Your task to perform on an android device: turn on data saver in the chrome app Image 0: 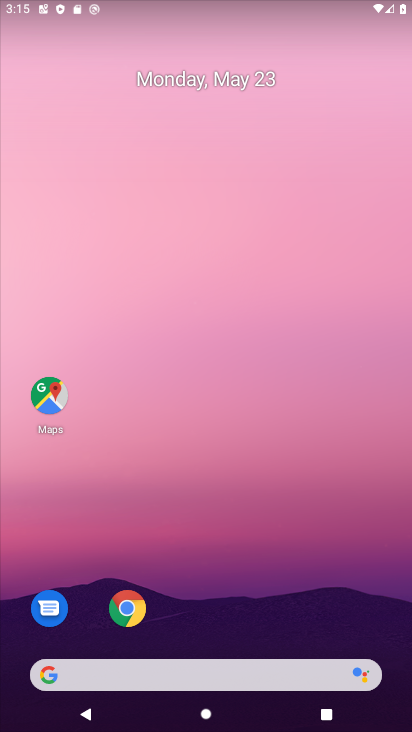
Step 0: click (127, 607)
Your task to perform on an android device: turn on data saver in the chrome app Image 1: 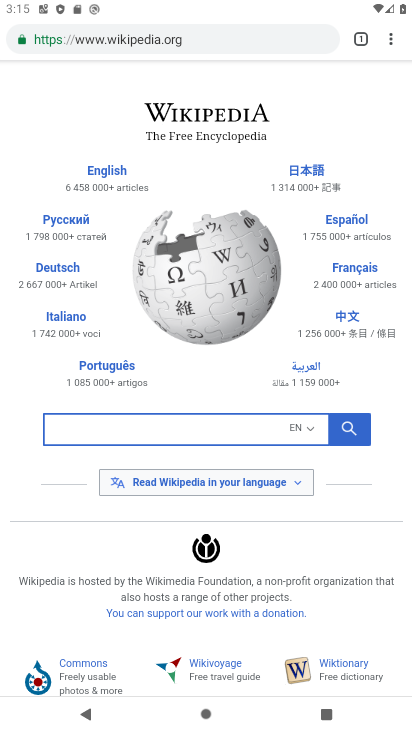
Step 1: click (391, 42)
Your task to perform on an android device: turn on data saver in the chrome app Image 2: 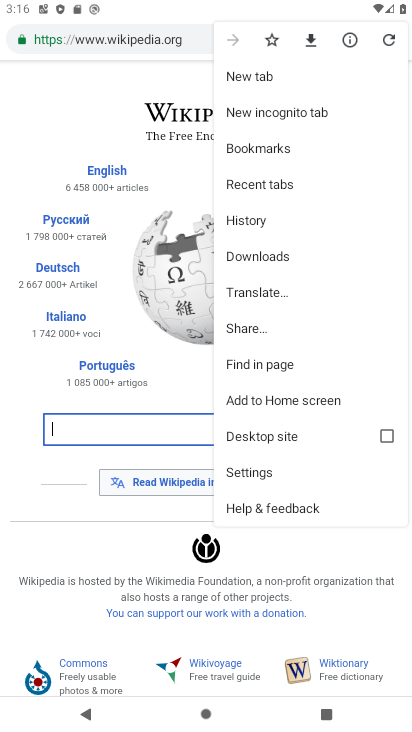
Step 2: click (253, 471)
Your task to perform on an android device: turn on data saver in the chrome app Image 3: 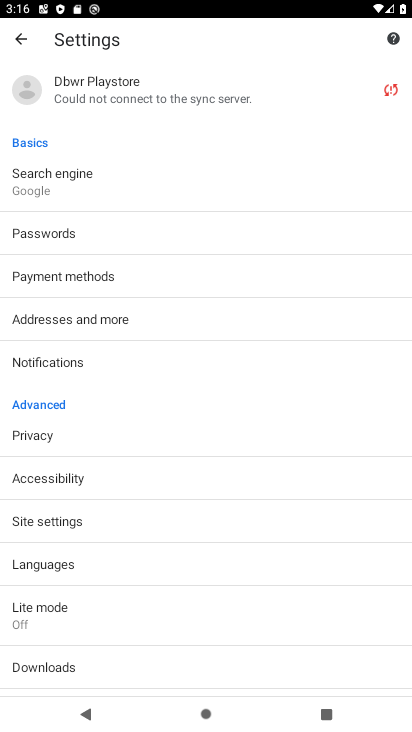
Step 3: click (47, 603)
Your task to perform on an android device: turn on data saver in the chrome app Image 4: 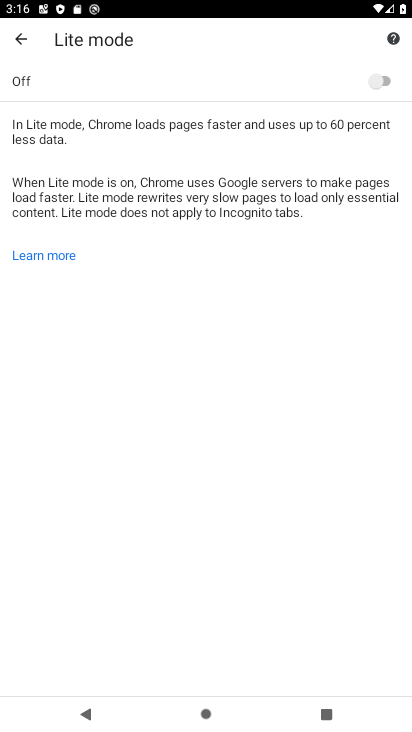
Step 4: click (380, 78)
Your task to perform on an android device: turn on data saver in the chrome app Image 5: 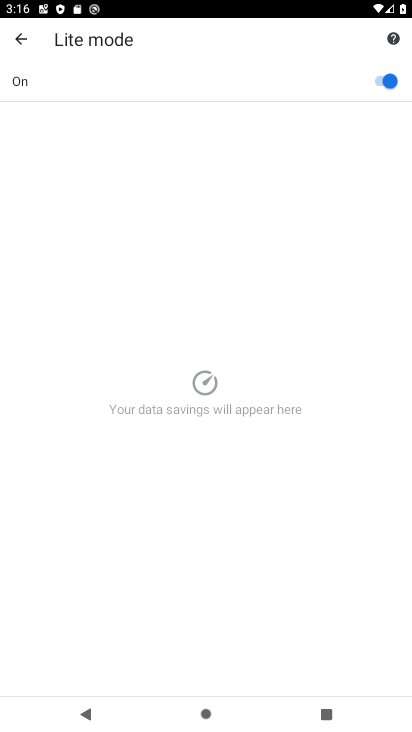
Step 5: task complete